Your task to perform on an android device: turn on bluetooth scan Image 0: 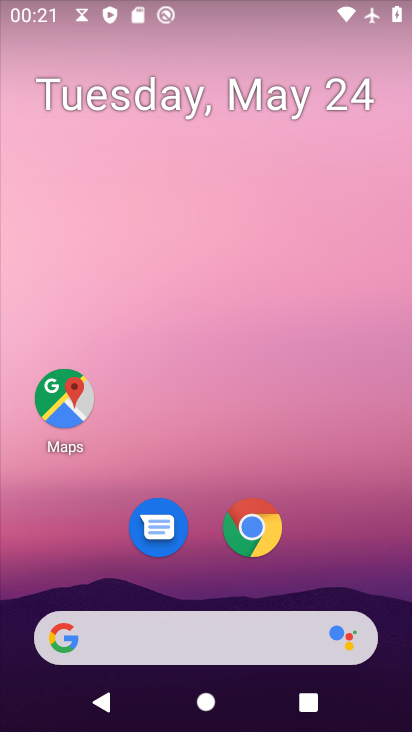
Step 0: drag from (165, 608) to (268, 134)
Your task to perform on an android device: turn on bluetooth scan Image 1: 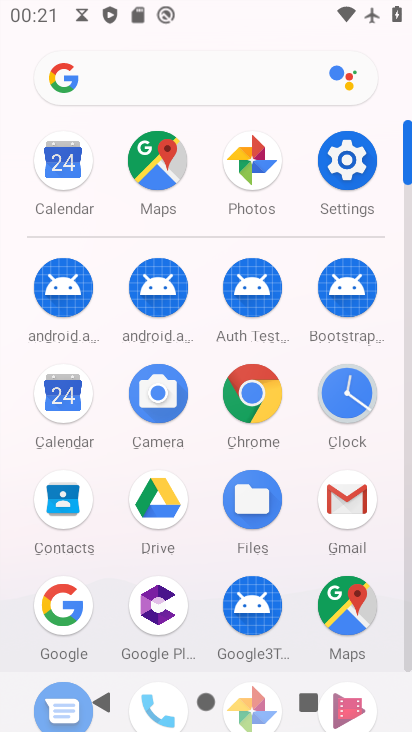
Step 1: click (340, 169)
Your task to perform on an android device: turn on bluetooth scan Image 2: 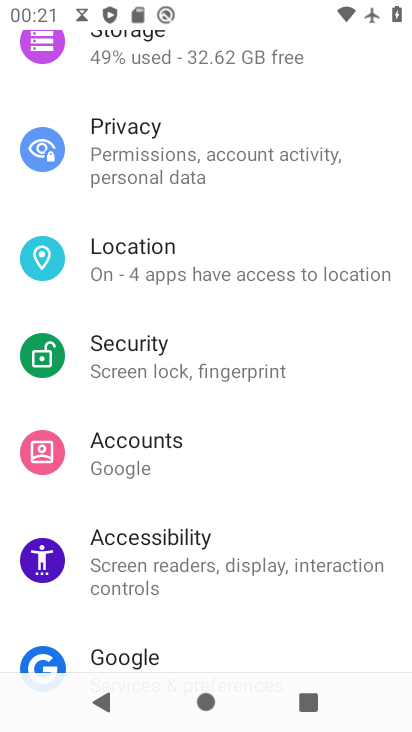
Step 2: click (117, 264)
Your task to perform on an android device: turn on bluetooth scan Image 3: 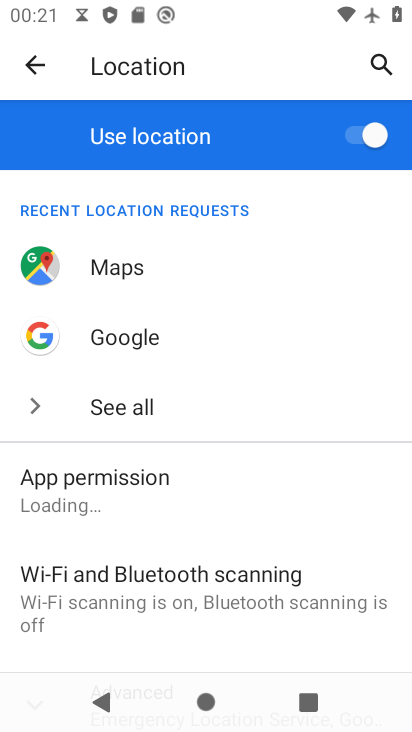
Step 3: click (221, 594)
Your task to perform on an android device: turn on bluetooth scan Image 4: 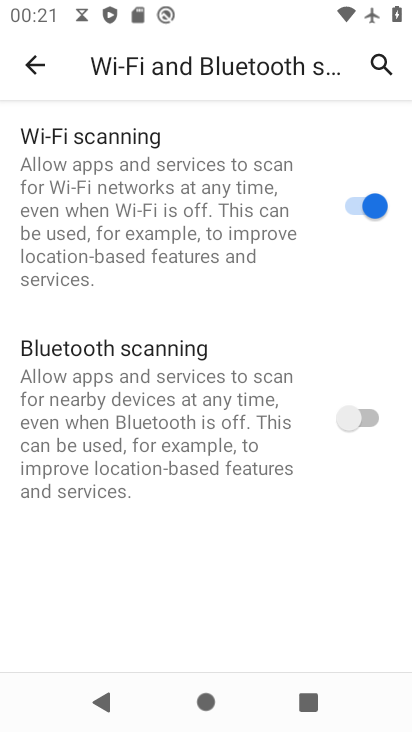
Step 4: click (366, 414)
Your task to perform on an android device: turn on bluetooth scan Image 5: 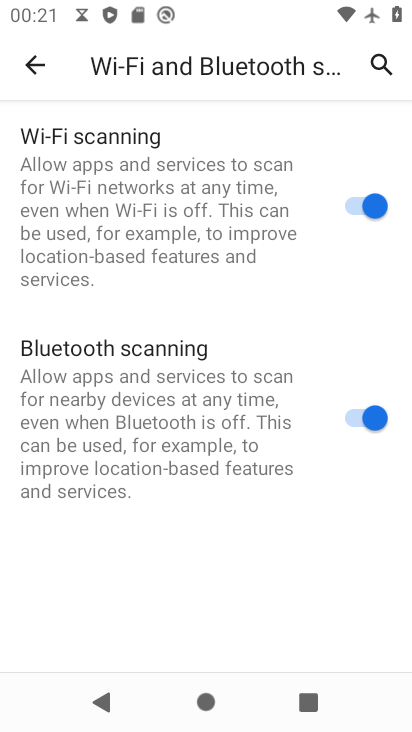
Step 5: task complete